Your task to perform on an android device: Open Google Maps and go to "Timeline" Image 0: 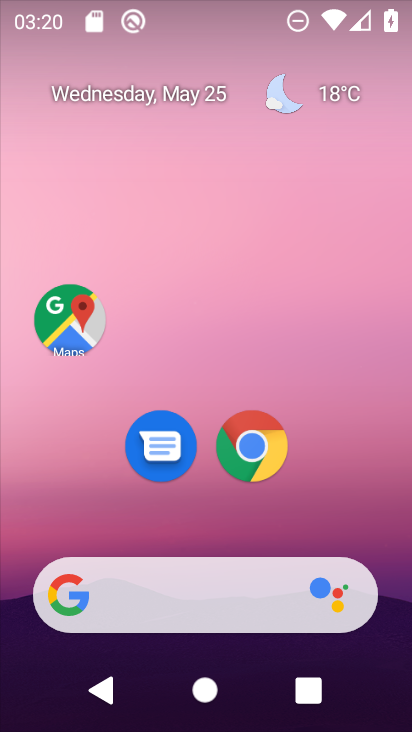
Step 0: click (85, 311)
Your task to perform on an android device: Open Google Maps and go to "Timeline" Image 1: 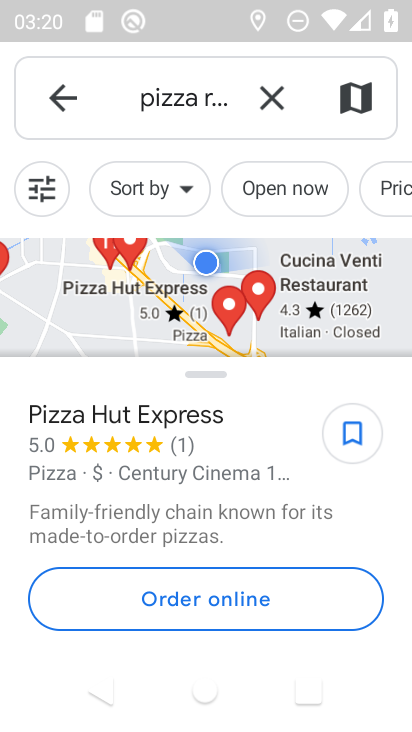
Step 1: click (73, 112)
Your task to perform on an android device: Open Google Maps and go to "Timeline" Image 2: 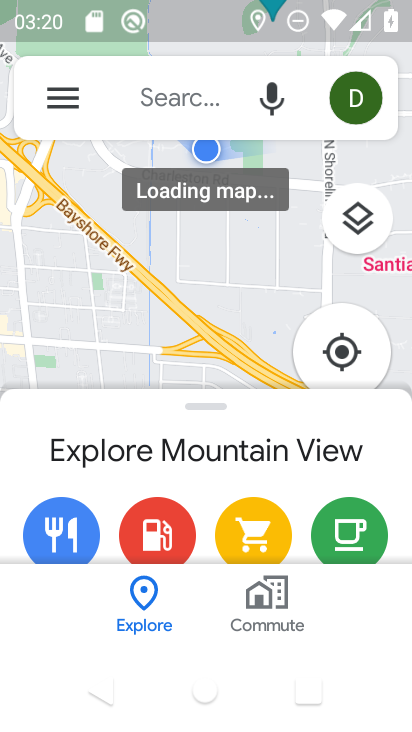
Step 2: click (66, 97)
Your task to perform on an android device: Open Google Maps and go to "Timeline" Image 3: 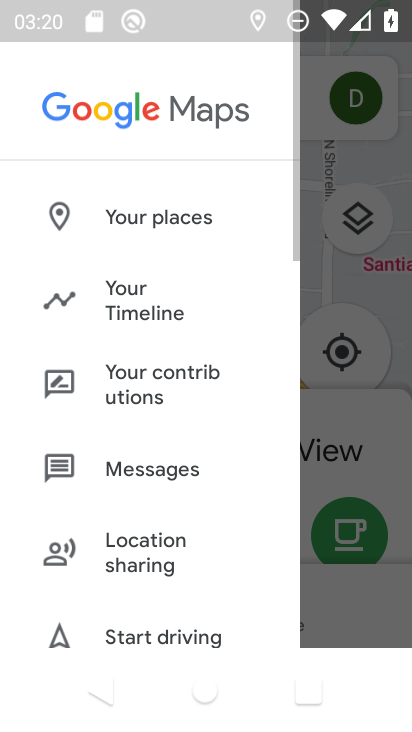
Step 3: click (121, 318)
Your task to perform on an android device: Open Google Maps and go to "Timeline" Image 4: 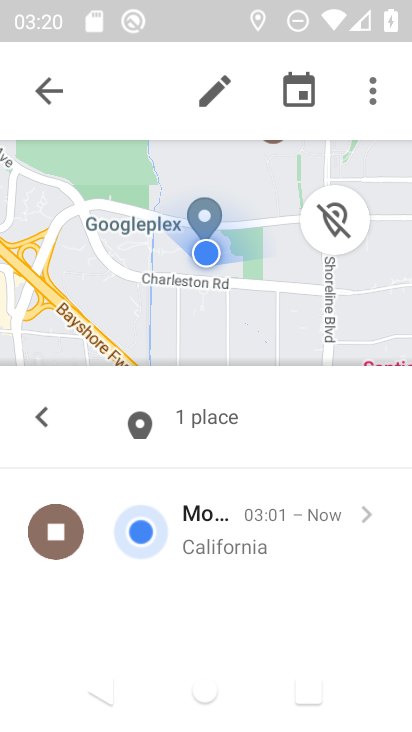
Step 4: task complete